Your task to perform on an android device: Open sound settings Image 0: 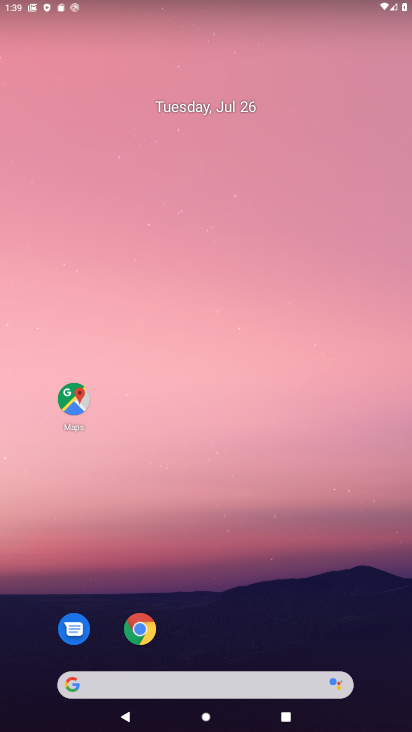
Step 0: drag from (210, 669) to (255, 25)
Your task to perform on an android device: Open sound settings Image 1: 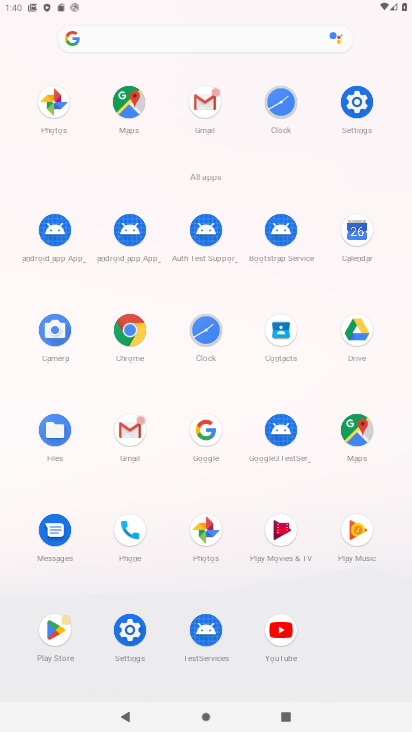
Step 1: click (358, 102)
Your task to perform on an android device: Open sound settings Image 2: 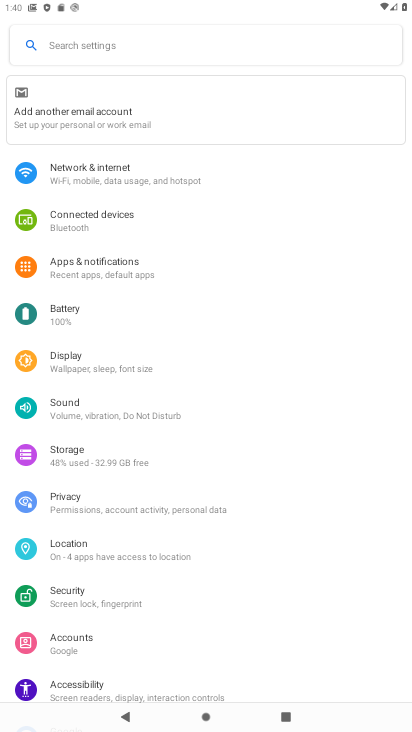
Step 2: click (74, 408)
Your task to perform on an android device: Open sound settings Image 3: 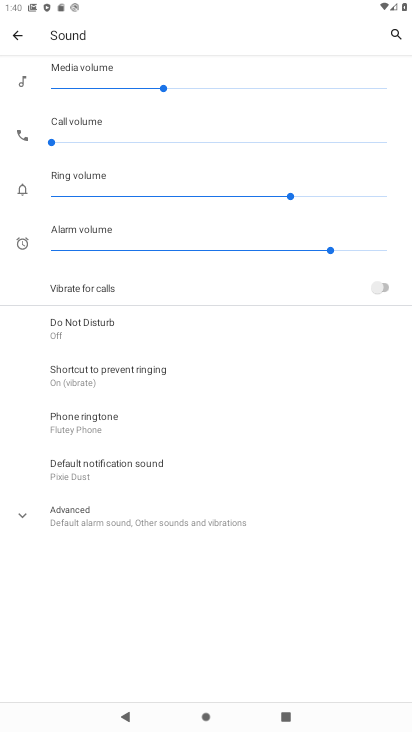
Step 3: click (141, 506)
Your task to perform on an android device: Open sound settings Image 4: 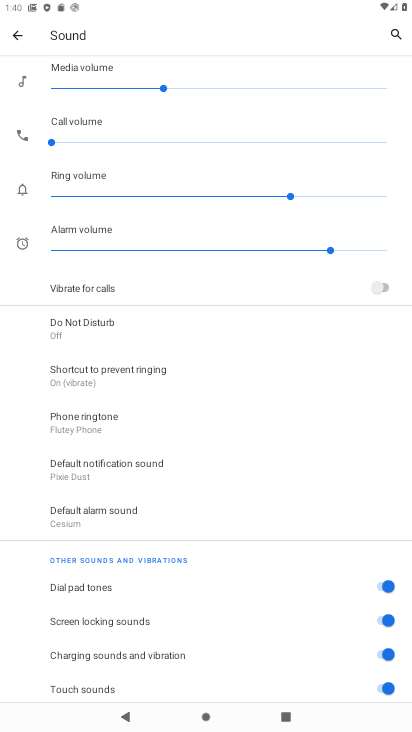
Step 4: task complete